Your task to perform on an android device: turn off data saver in the chrome app Image 0: 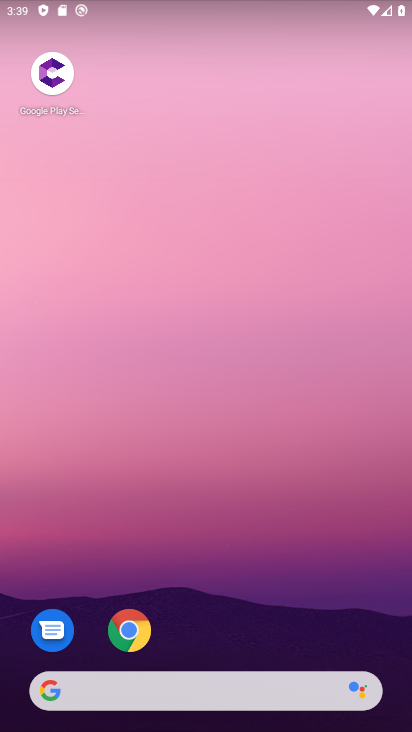
Step 0: drag from (181, 648) to (292, 90)
Your task to perform on an android device: turn off data saver in the chrome app Image 1: 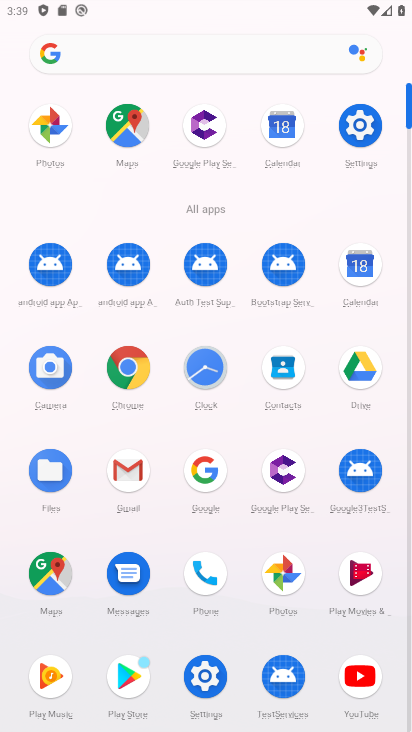
Step 1: click (128, 359)
Your task to perform on an android device: turn off data saver in the chrome app Image 2: 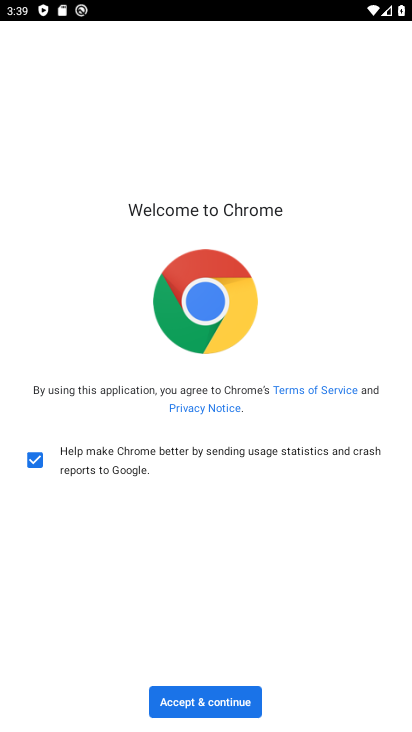
Step 2: click (238, 705)
Your task to perform on an android device: turn off data saver in the chrome app Image 3: 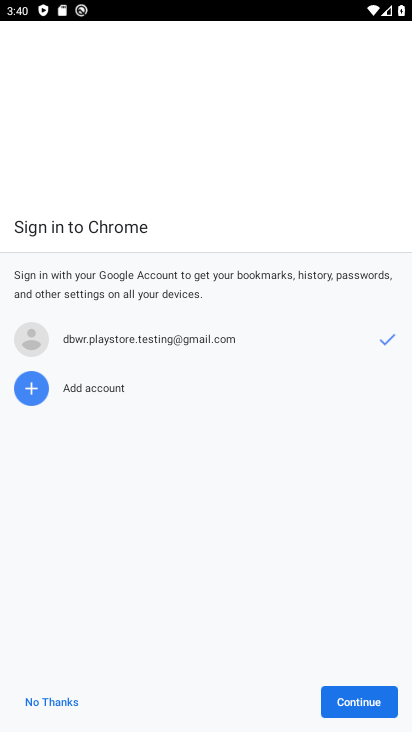
Step 3: click (382, 700)
Your task to perform on an android device: turn off data saver in the chrome app Image 4: 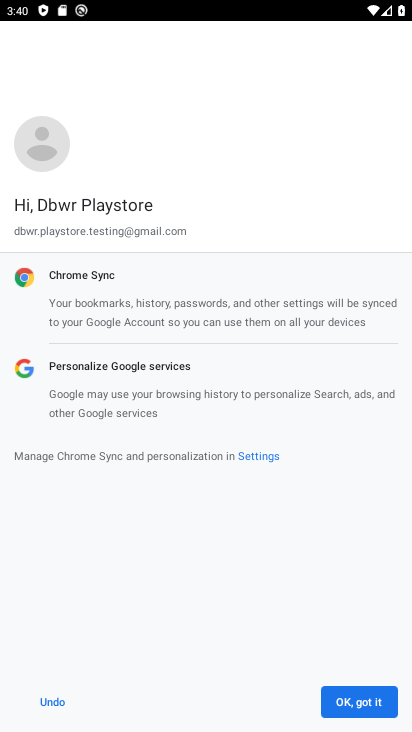
Step 4: click (382, 701)
Your task to perform on an android device: turn off data saver in the chrome app Image 5: 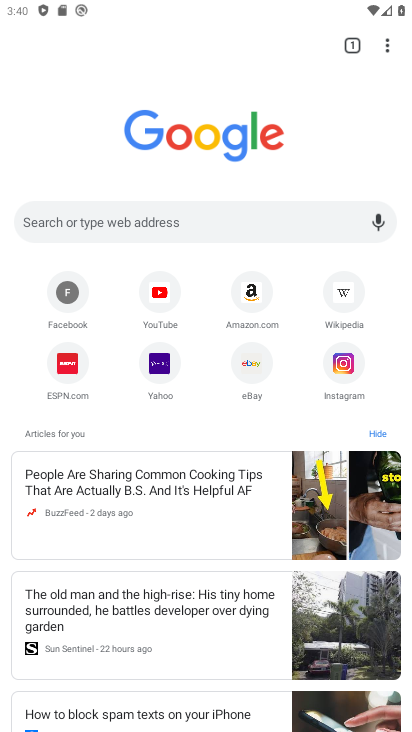
Step 5: click (395, 44)
Your task to perform on an android device: turn off data saver in the chrome app Image 6: 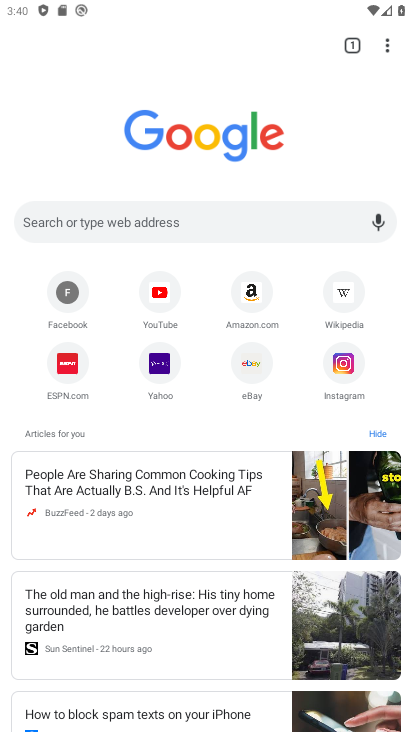
Step 6: click (389, 48)
Your task to perform on an android device: turn off data saver in the chrome app Image 7: 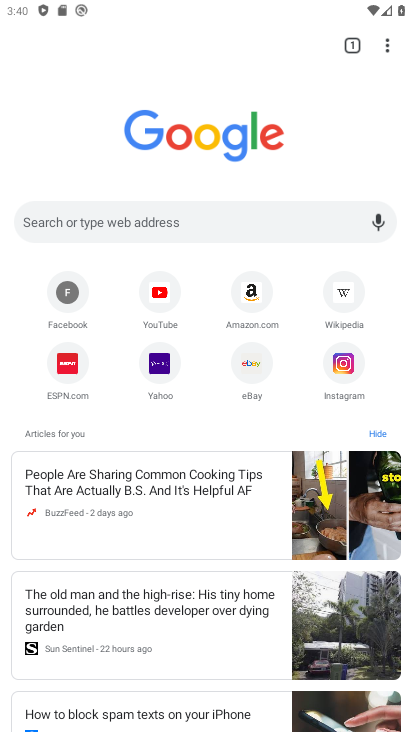
Step 7: click (384, 51)
Your task to perform on an android device: turn off data saver in the chrome app Image 8: 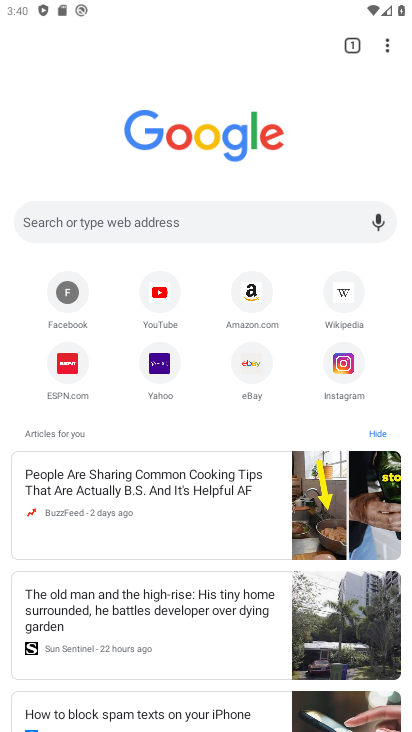
Step 8: click (384, 51)
Your task to perform on an android device: turn off data saver in the chrome app Image 9: 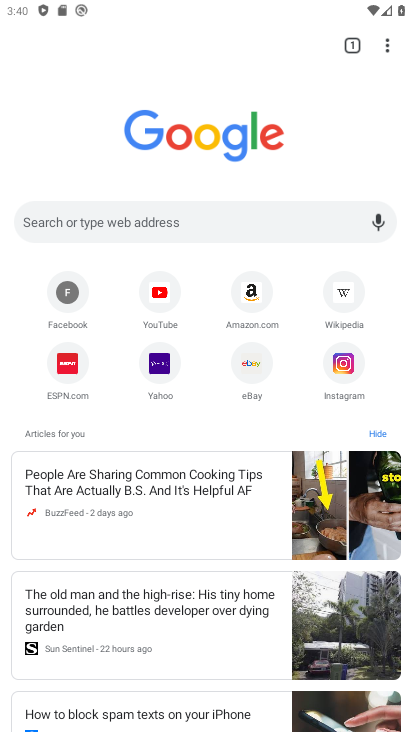
Step 9: click (384, 51)
Your task to perform on an android device: turn off data saver in the chrome app Image 10: 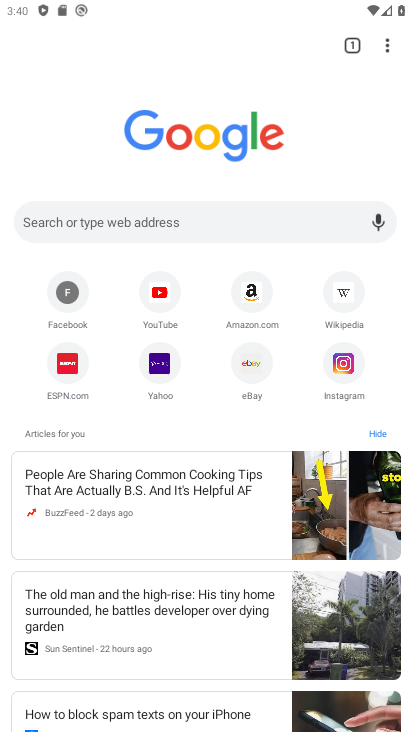
Step 10: click (384, 51)
Your task to perform on an android device: turn off data saver in the chrome app Image 11: 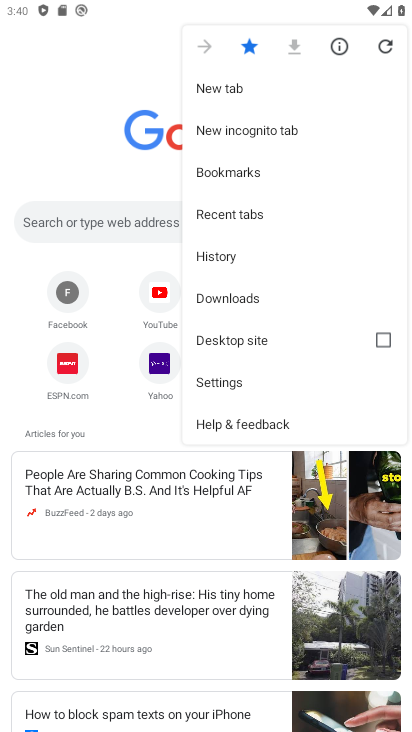
Step 11: click (281, 382)
Your task to perform on an android device: turn off data saver in the chrome app Image 12: 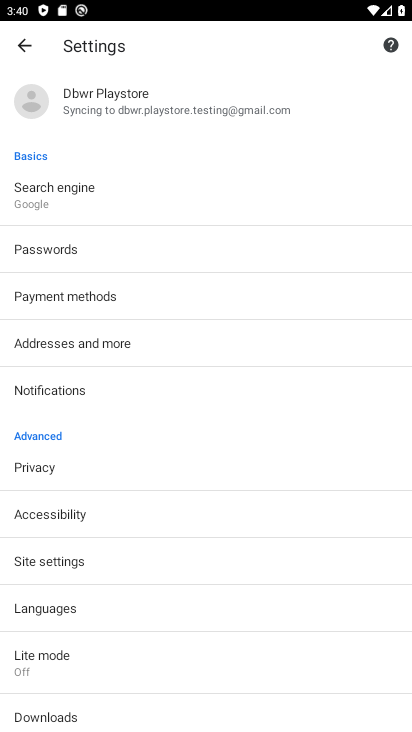
Step 12: click (88, 657)
Your task to perform on an android device: turn off data saver in the chrome app Image 13: 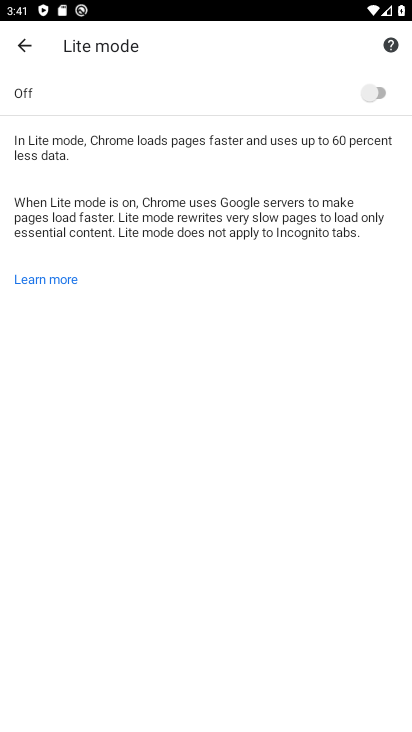
Step 13: task complete